Your task to perform on an android device: Go to CNN.com Image 0: 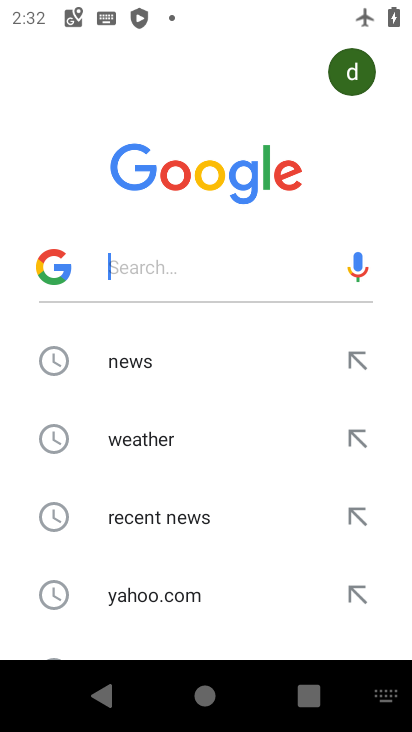
Step 0: type "cnn.com"
Your task to perform on an android device: Go to CNN.com Image 1: 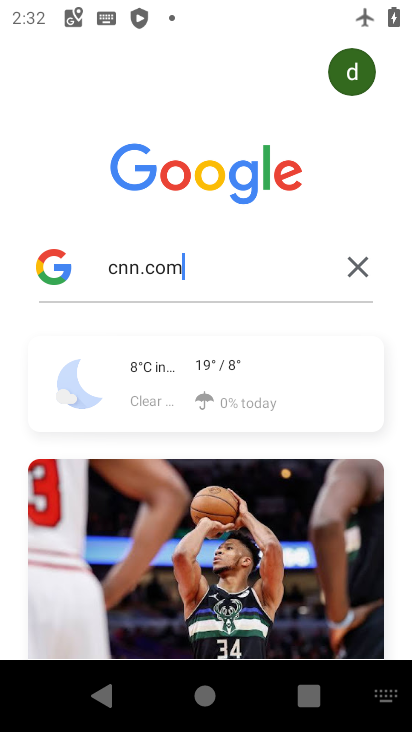
Step 1: press enter
Your task to perform on an android device: Go to CNN.com Image 2: 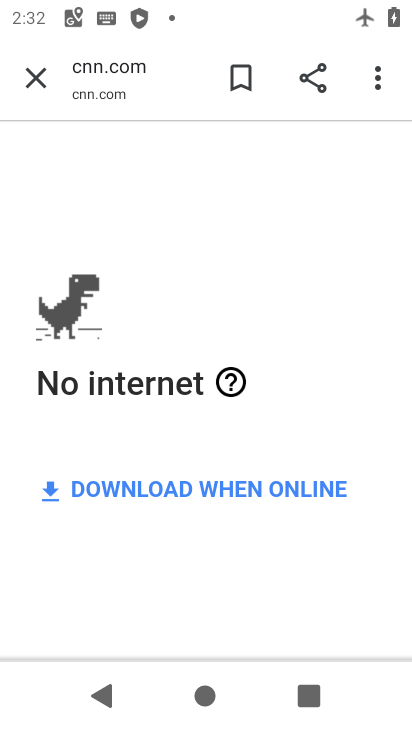
Step 2: task complete